Your task to perform on an android device: Open Maps and search for coffee Image 0: 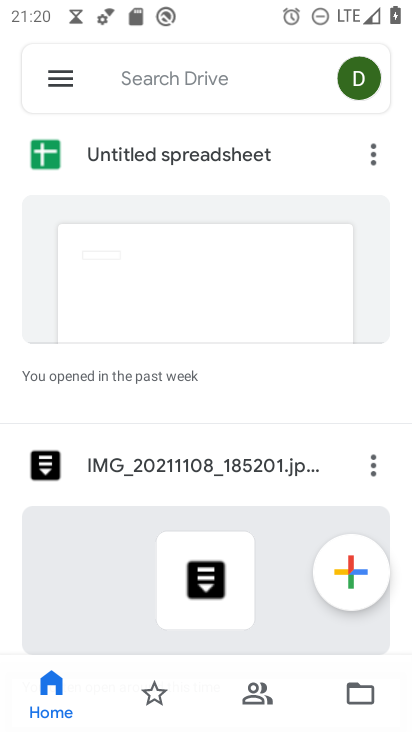
Step 0: press home button
Your task to perform on an android device: Open Maps and search for coffee Image 1: 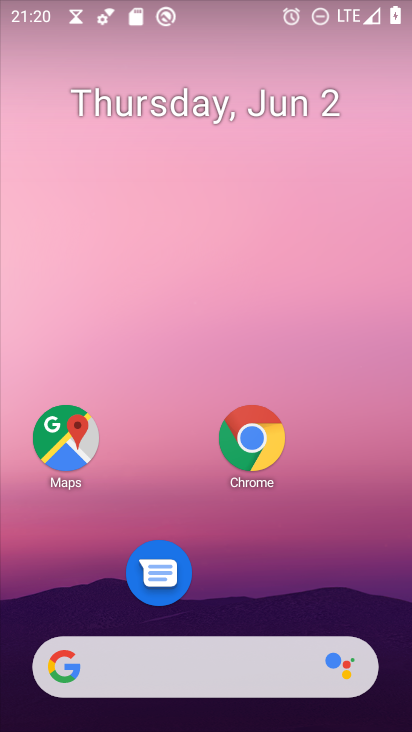
Step 1: click (61, 451)
Your task to perform on an android device: Open Maps and search for coffee Image 2: 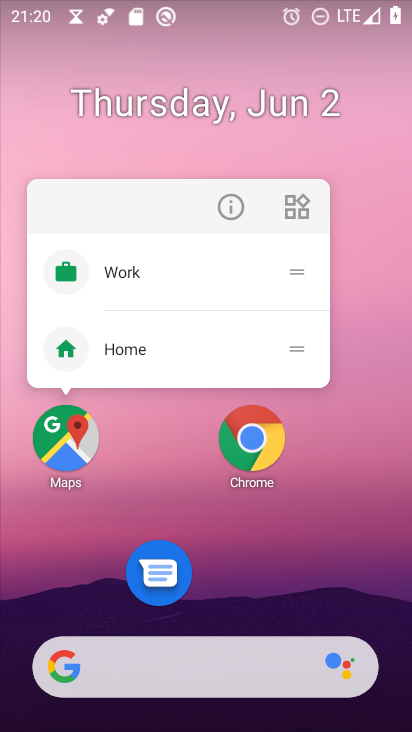
Step 2: click (75, 443)
Your task to perform on an android device: Open Maps and search for coffee Image 3: 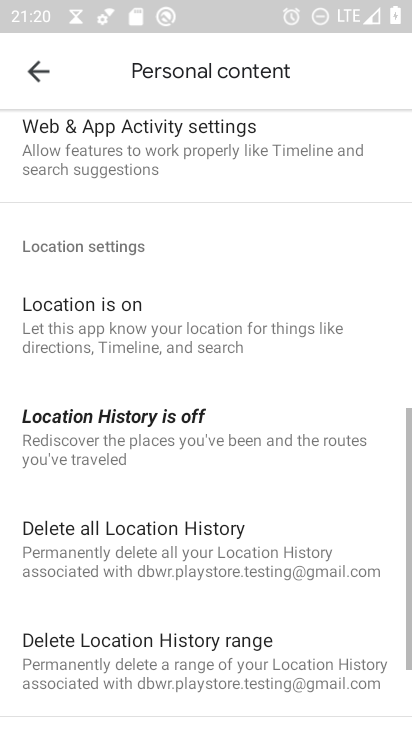
Step 3: click (40, 70)
Your task to perform on an android device: Open Maps and search for coffee Image 4: 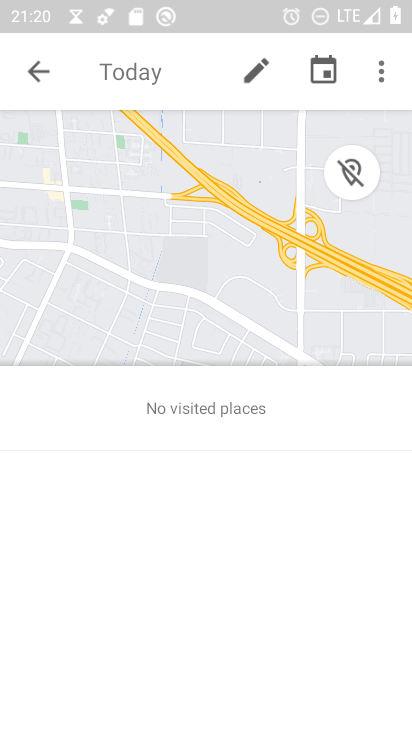
Step 4: click (38, 72)
Your task to perform on an android device: Open Maps and search for coffee Image 5: 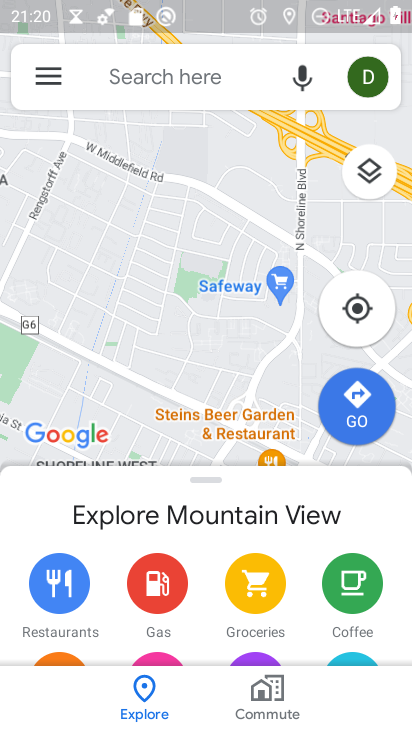
Step 5: click (165, 78)
Your task to perform on an android device: Open Maps and search for coffee Image 6: 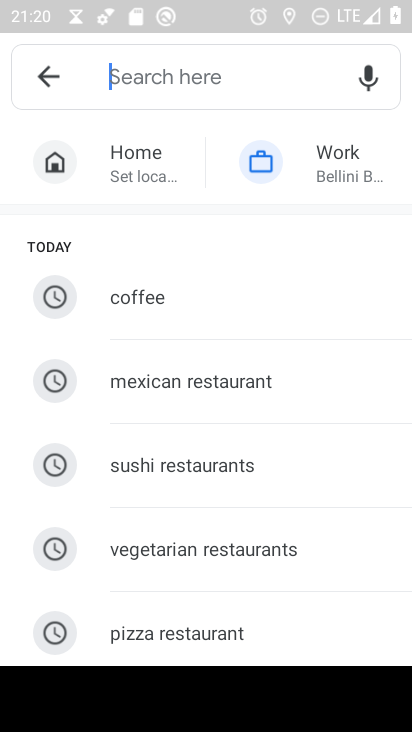
Step 6: click (148, 309)
Your task to perform on an android device: Open Maps and search for coffee Image 7: 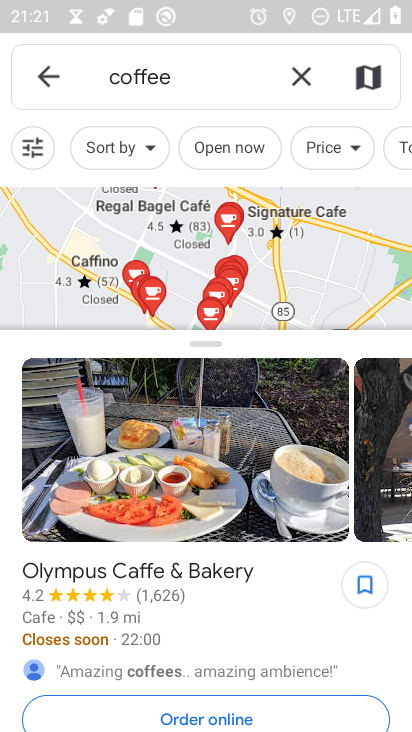
Step 7: task complete